Your task to perform on an android device: open a new tab in the chrome app Image 0: 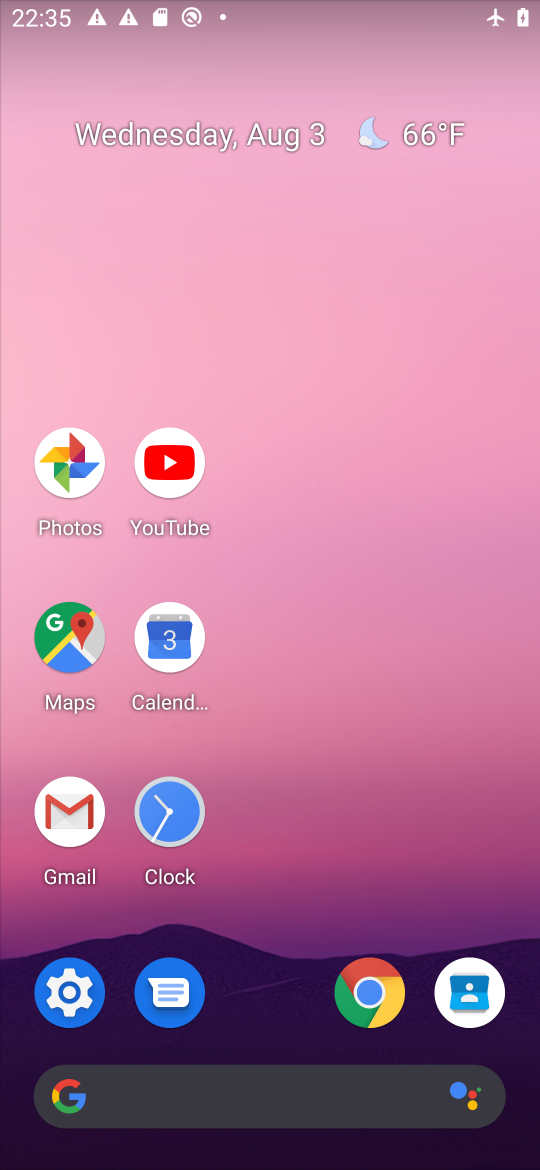
Step 0: click (376, 986)
Your task to perform on an android device: open a new tab in the chrome app Image 1: 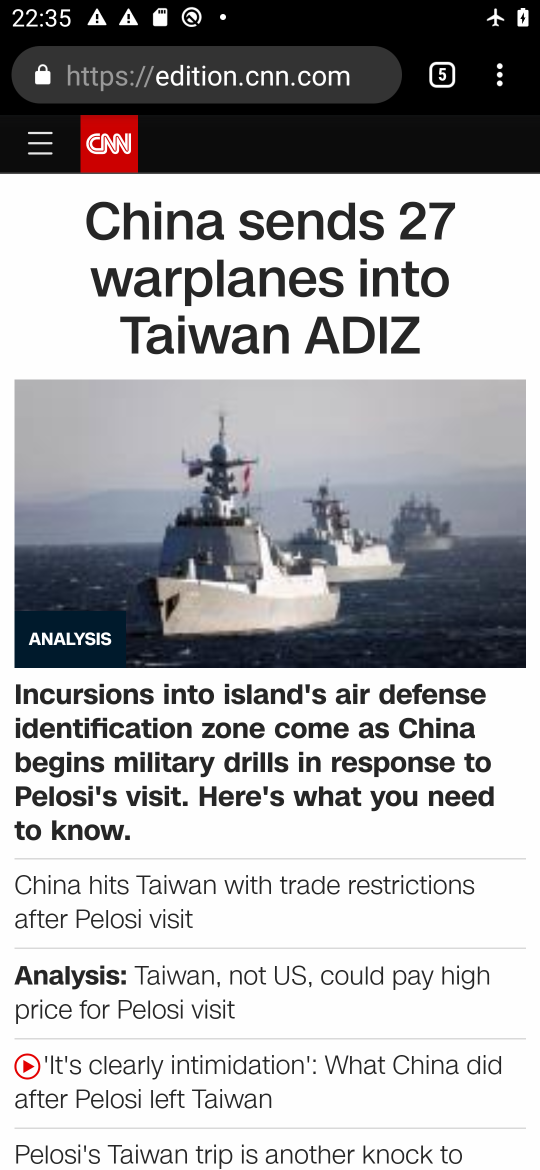
Step 1: click (507, 77)
Your task to perform on an android device: open a new tab in the chrome app Image 2: 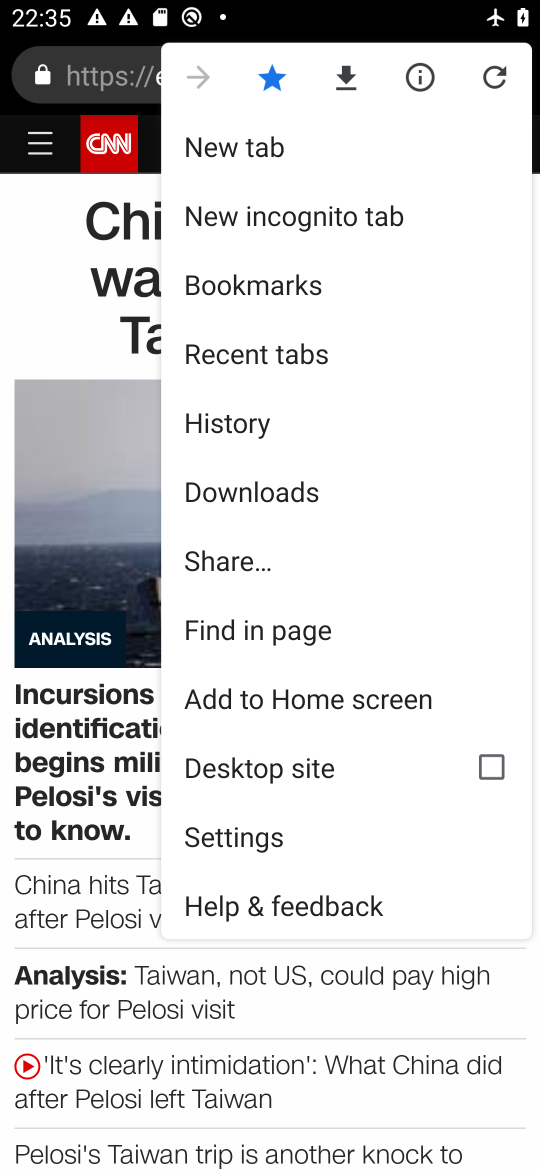
Step 2: click (260, 153)
Your task to perform on an android device: open a new tab in the chrome app Image 3: 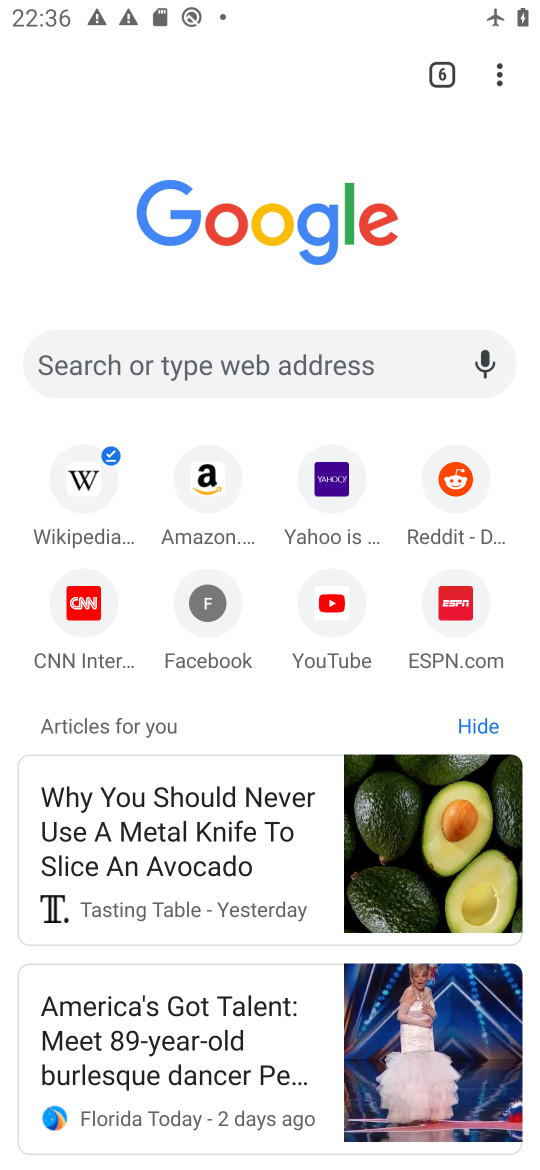
Step 3: task complete